Your task to perform on an android device: Open the phone app and click the voicemail tab. Image 0: 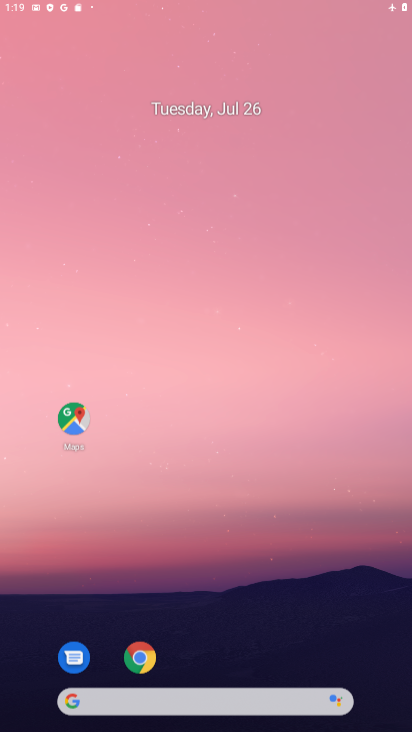
Step 0: press home button
Your task to perform on an android device: Open the phone app and click the voicemail tab. Image 1: 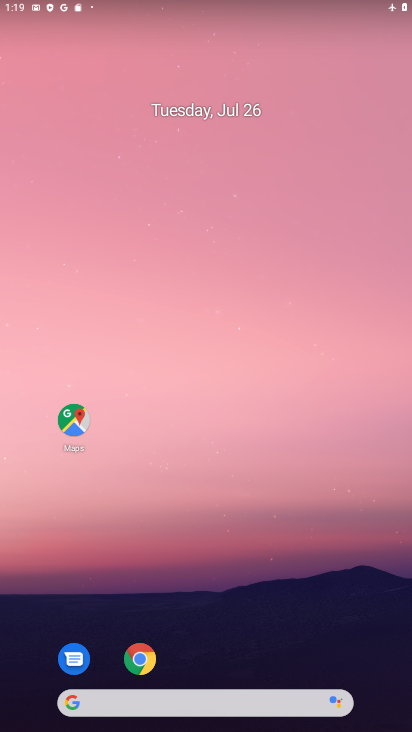
Step 1: drag from (236, 671) to (251, 246)
Your task to perform on an android device: Open the phone app and click the voicemail tab. Image 2: 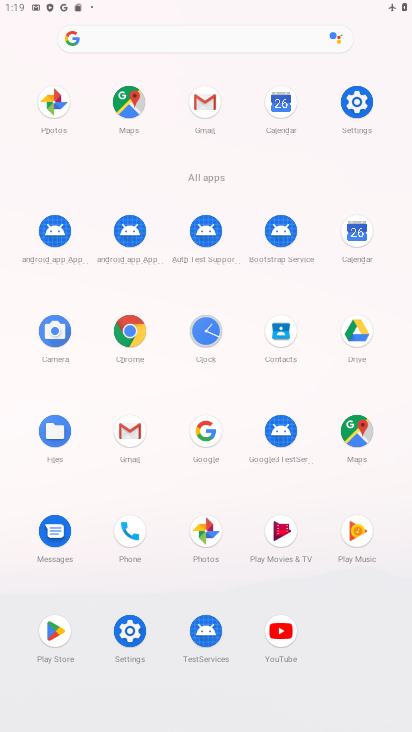
Step 2: click (126, 526)
Your task to perform on an android device: Open the phone app and click the voicemail tab. Image 3: 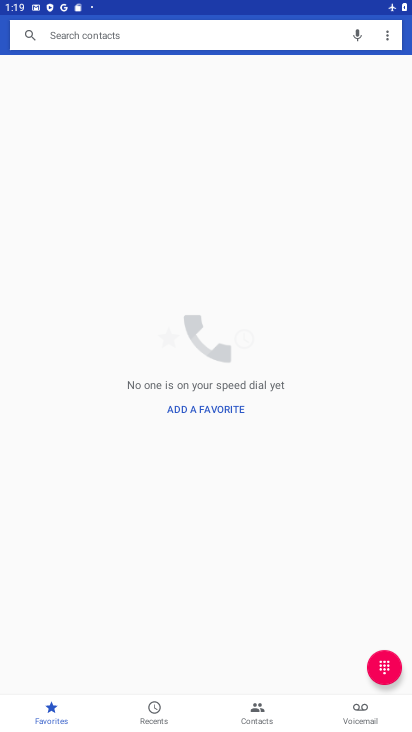
Step 3: click (353, 713)
Your task to perform on an android device: Open the phone app and click the voicemail tab. Image 4: 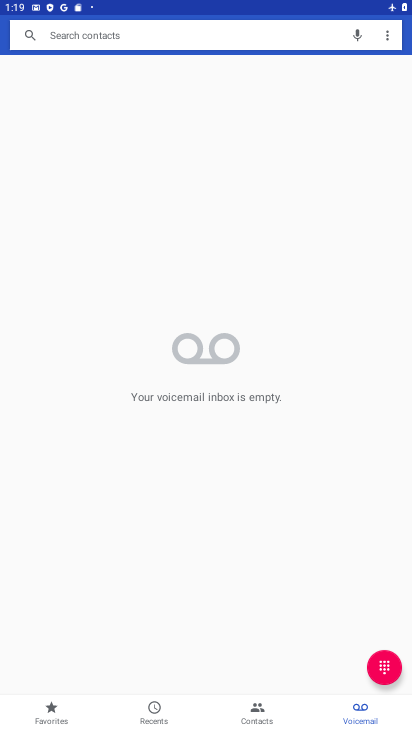
Step 4: task complete